Your task to perform on an android device: Search for Italian restaurants on Maps Image 0: 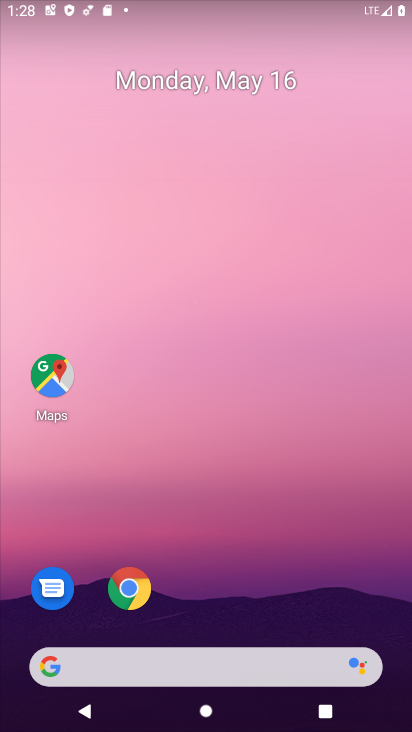
Step 0: click (51, 375)
Your task to perform on an android device: Search for Italian restaurants on Maps Image 1: 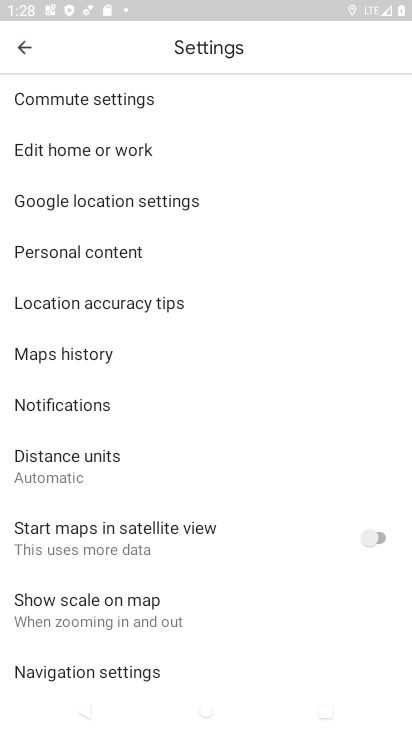
Step 1: press back button
Your task to perform on an android device: Search for Italian restaurants on Maps Image 2: 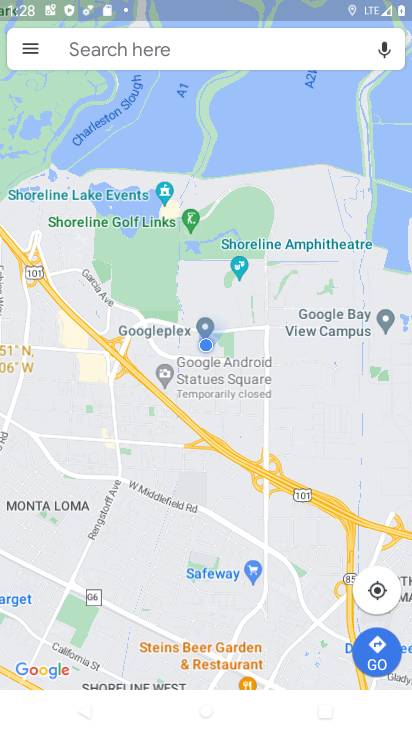
Step 2: click (239, 42)
Your task to perform on an android device: Search for Italian restaurants on Maps Image 3: 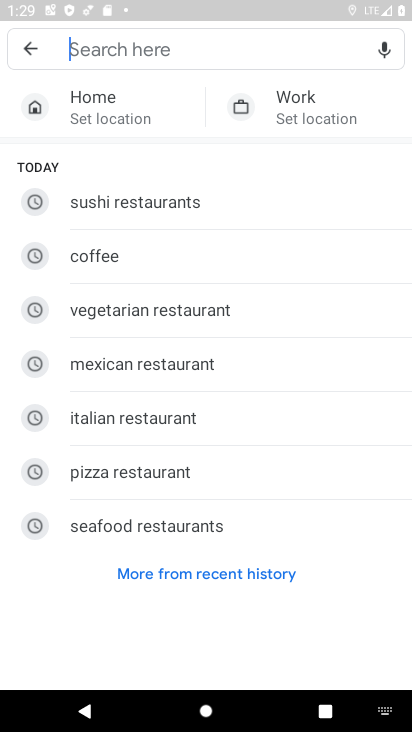
Step 3: type "Italian restaurants"
Your task to perform on an android device: Search for Italian restaurants on Maps Image 4: 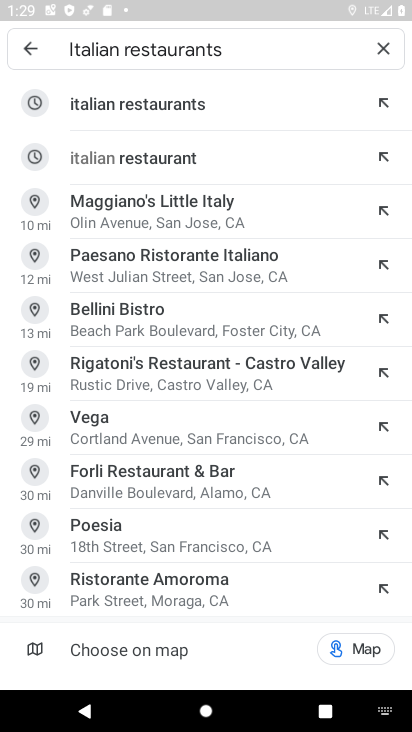
Step 4: click (145, 102)
Your task to perform on an android device: Search for Italian restaurants on Maps Image 5: 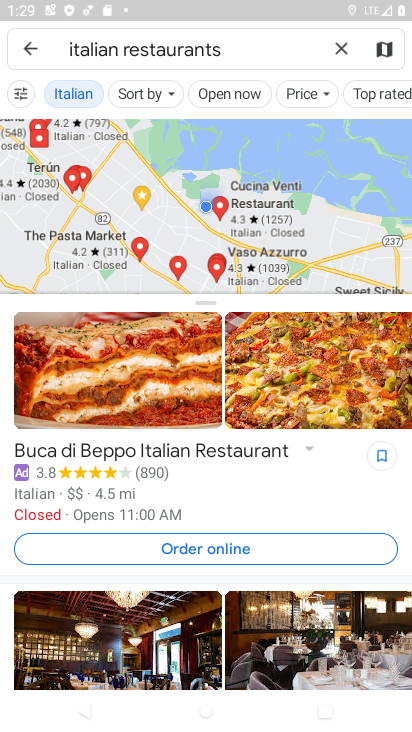
Step 5: task complete